Your task to perform on an android device: Show me the alarms in the clock app Image 0: 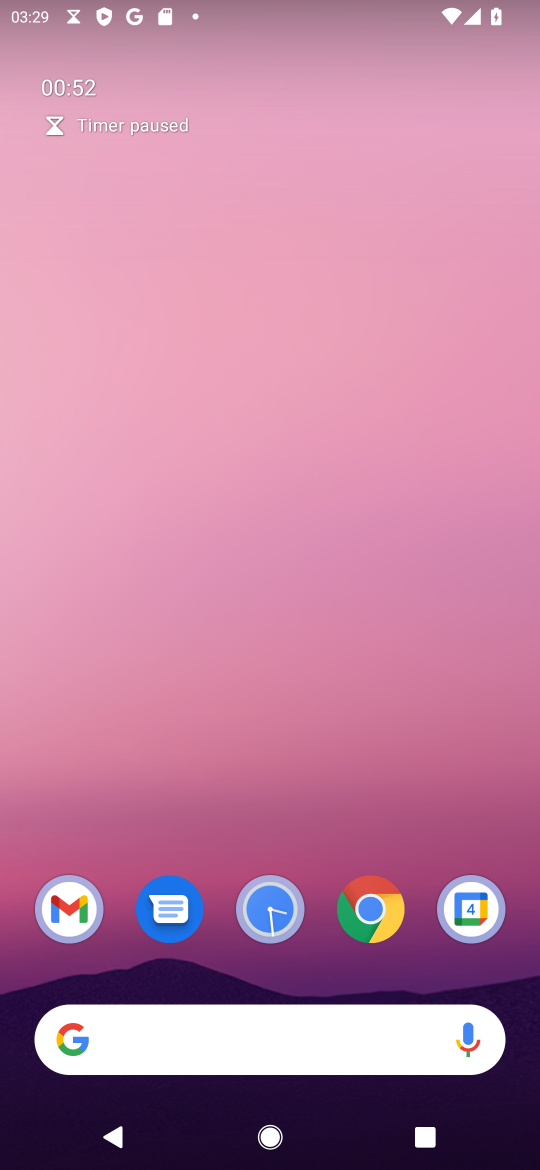
Step 0: click (265, 923)
Your task to perform on an android device: Show me the alarms in the clock app Image 1: 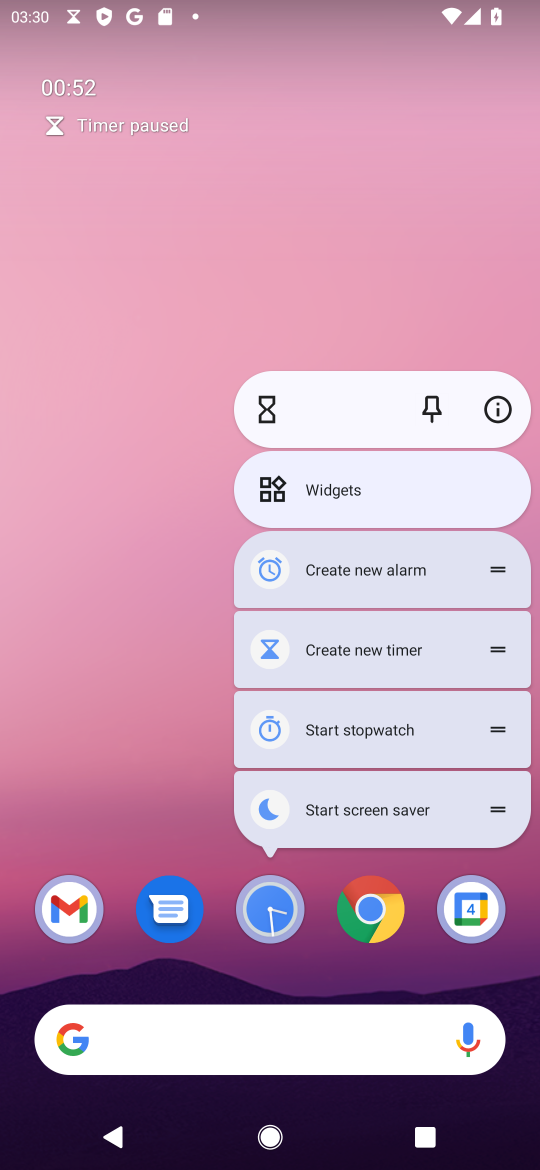
Step 1: click (266, 911)
Your task to perform on an android device: Show me the alarms in the clock app Image 2: 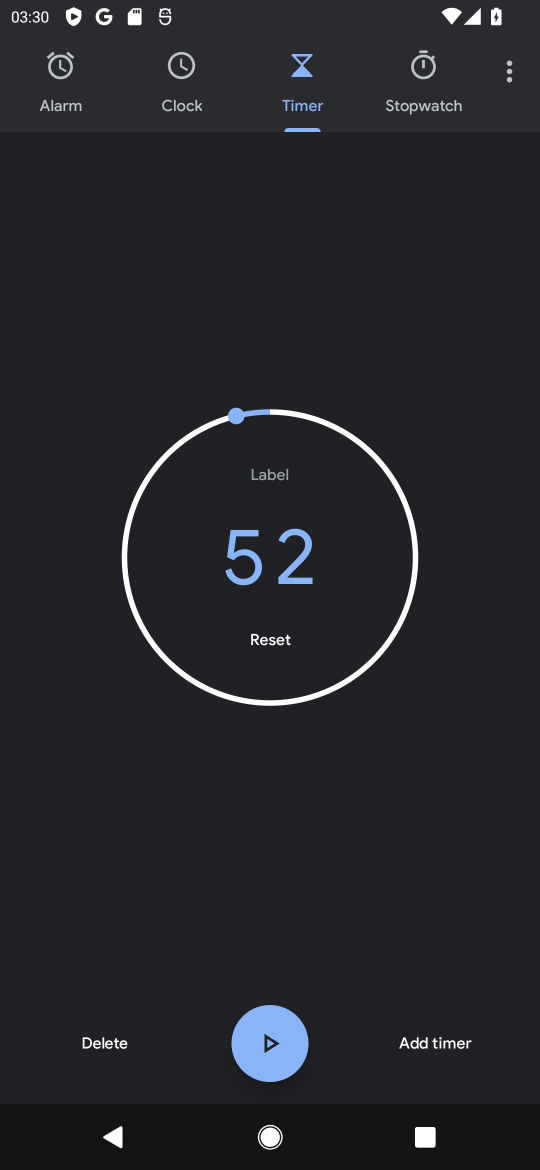
Step 2: click (57, 88)
Your task to perform on an android device: Show me the alarms in the clock app Image 3: 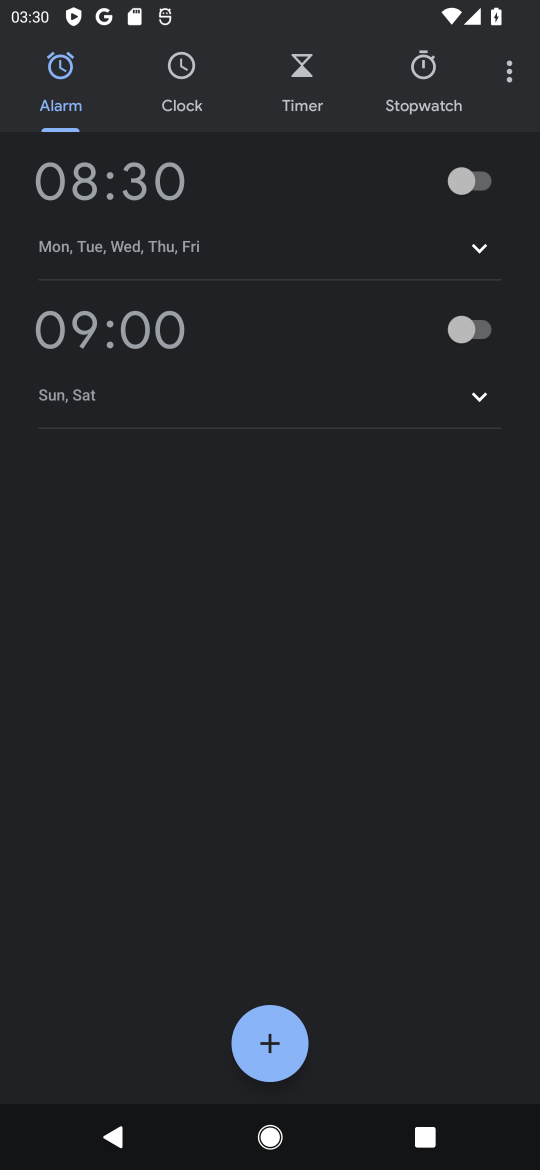
Step 3: task complete